Your task to perform on an android device: toggle data saver in the chrome app Image 0: 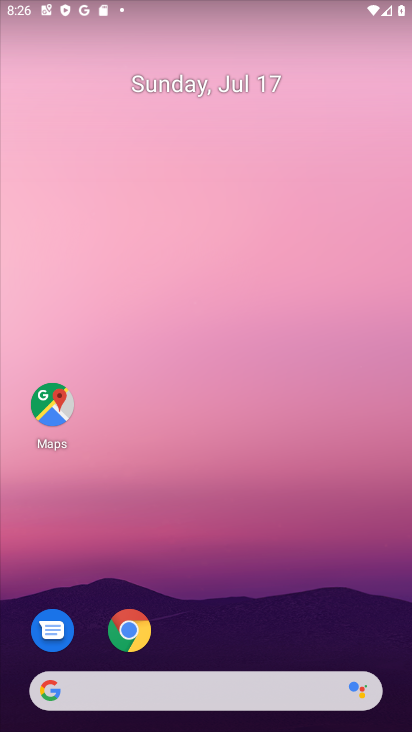
Step 0: click (126, 637)
Your task to perform on an android device: toggle data saver in the chrome app Image 1: 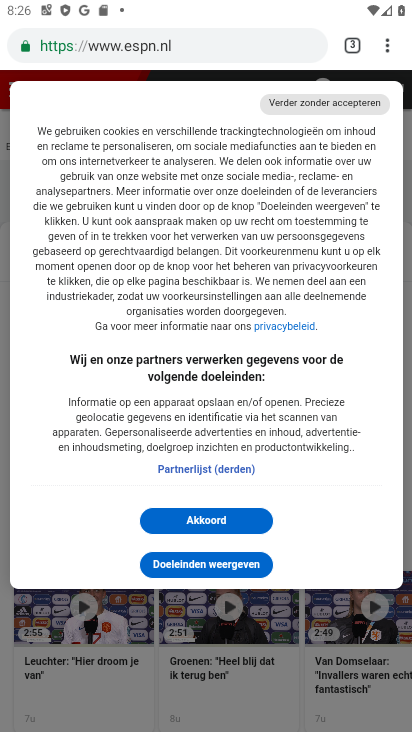
Step 1: click (386, 45)
Your task to perform on an android device: toggle data saver in the chrome app Image 2: 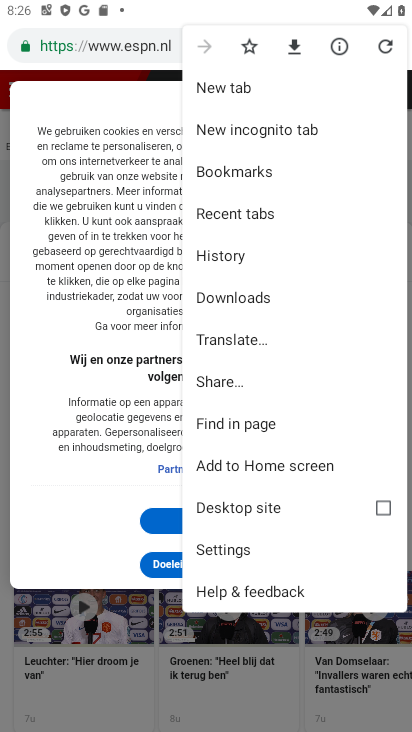
Step 2: click (220, 553)
Your task to perform on an android device: toggle data saver in the chrome app Image 3: 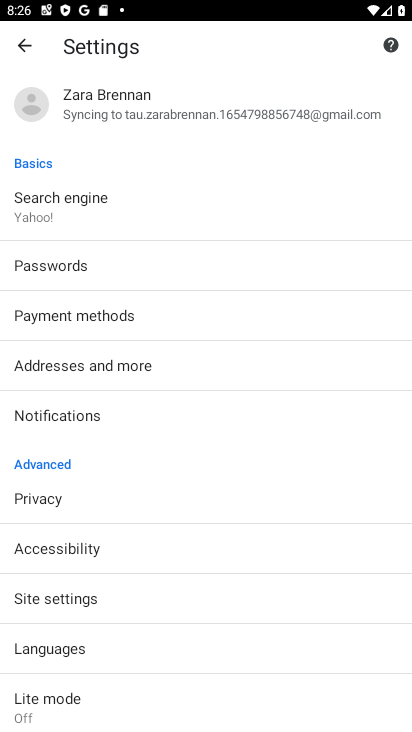
Step 3: click (40, 700)
Your task to perform on an android device: toggle data saver in the chrome app Image 4: 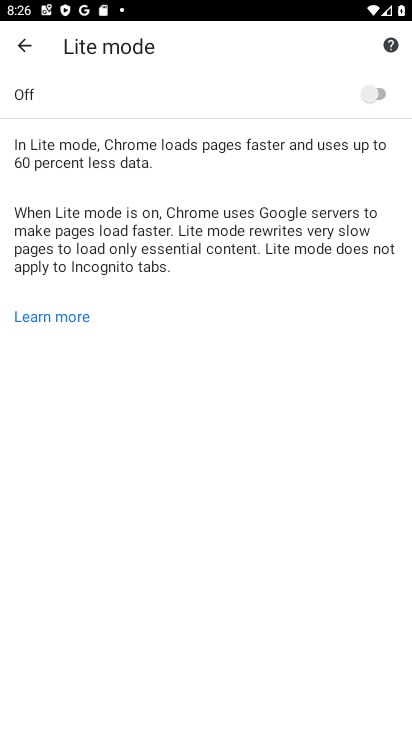
Step 4: click (381, 92)
Your task to perform on an android device: toggle data saver in the chrome app Image 5: 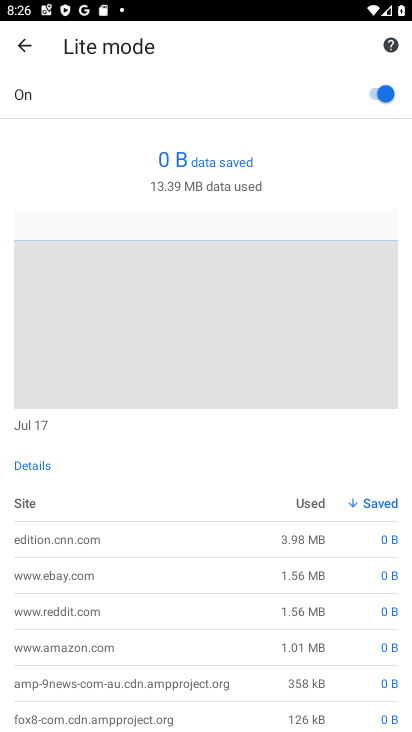
Step 5: task complete